Your task to perform on an android device: Search for macbook pro 13 inch on amazon.com, select the first entry, add it to the cart, then select checkout. Image 0: 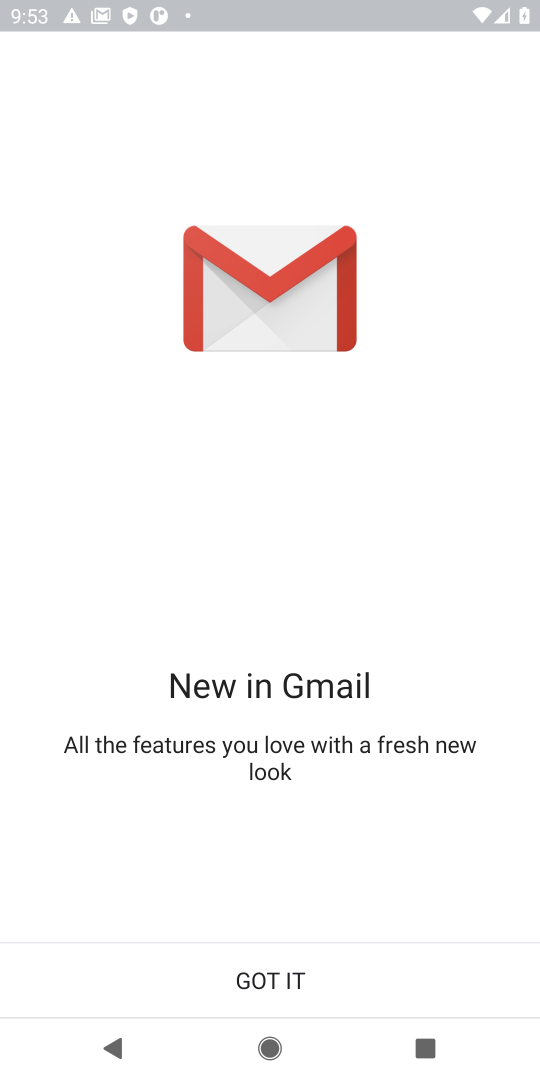
Step 0: press home button
Your task to perform on an android device: Search for macbook pro 13 inch on amazon.com, select the first entry, add it to the cart, then select checkout. Image 1: 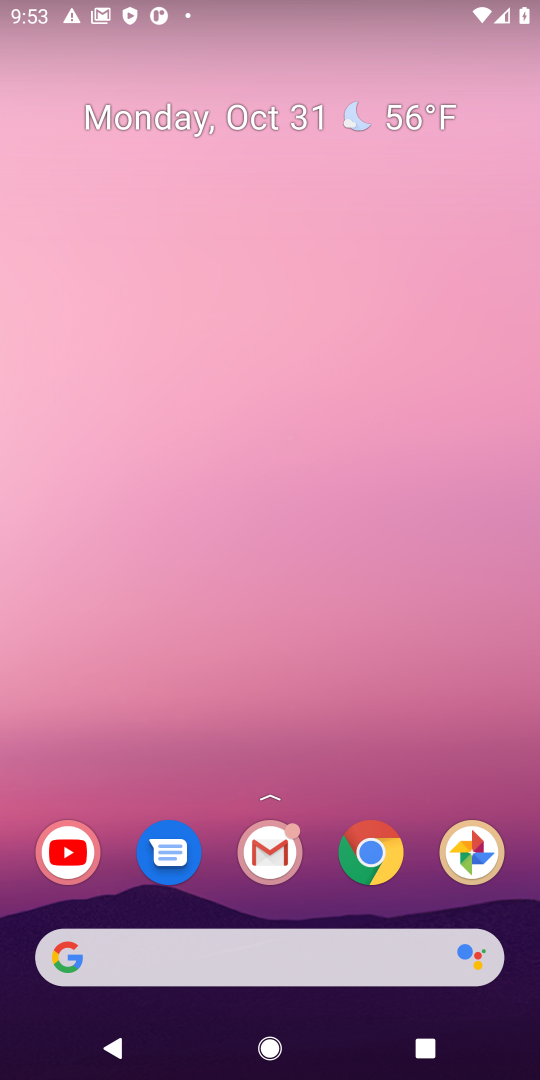
Step 1: drag from (317, 807) to (301, 111)
Your task to perform on an android device: Search for macbook pro 13 inch on amazon.com, select the first entry, add it to the cart, then select checkout. Image 2: 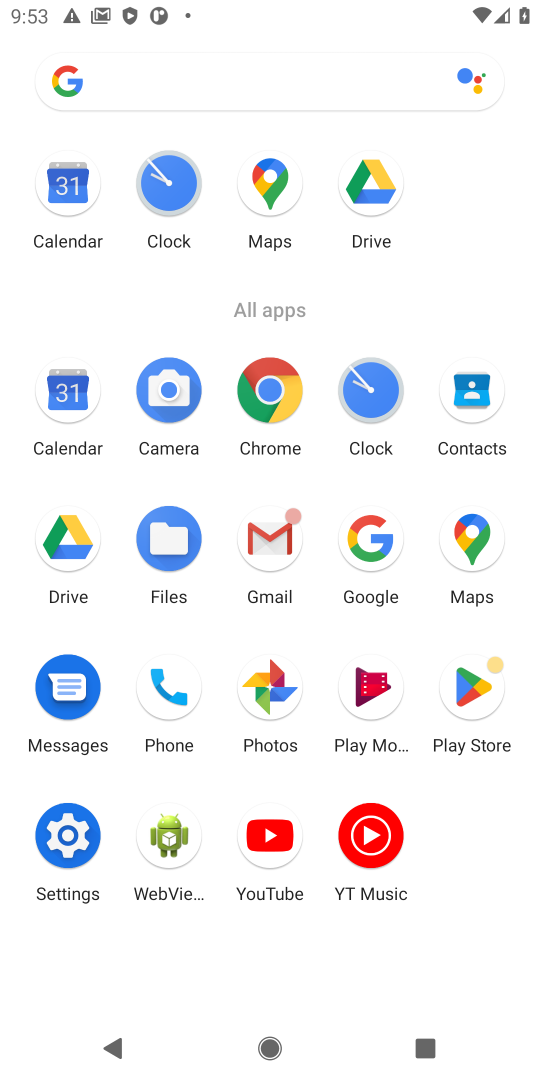
Step 2: click (270, 387)
Your task to perform on an android device: Search for macbook pro 13 inch on amazon.com, select the first entry, add it to the cart, then select checkout. Image 3: 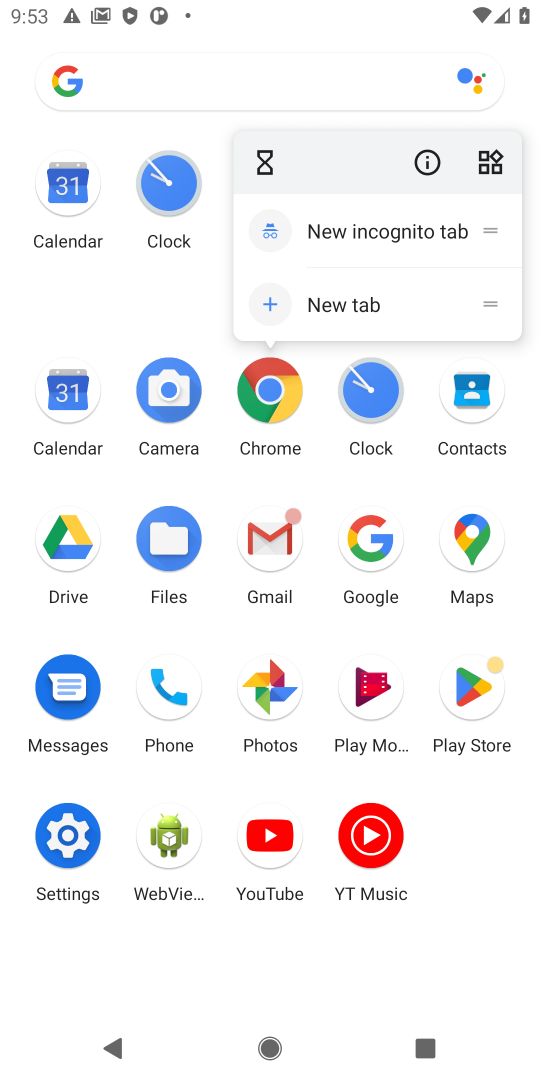
Step 3: click (270, 394)
Your task to perform on an android device: Search for macbook pro 13 inch on amazon.com, select the first entry, add it to the cart, then select checkout. Image 4: 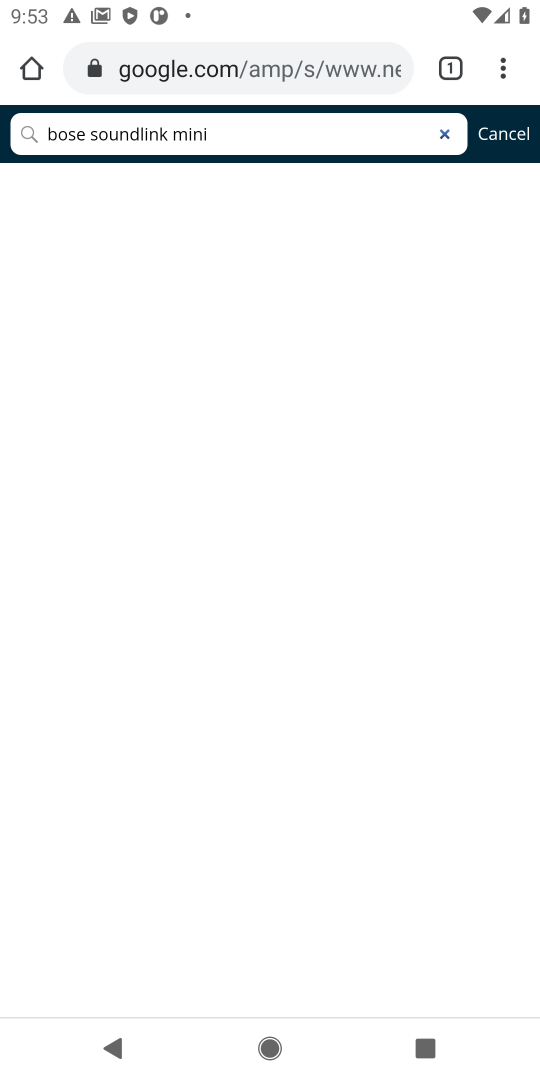
Step 4: click (444, 133)
Your task to perform on an android device: Search for macbook pro 13 inch on amazon.com, select the first entry, add it to the cart, then select checkout. Image 5: 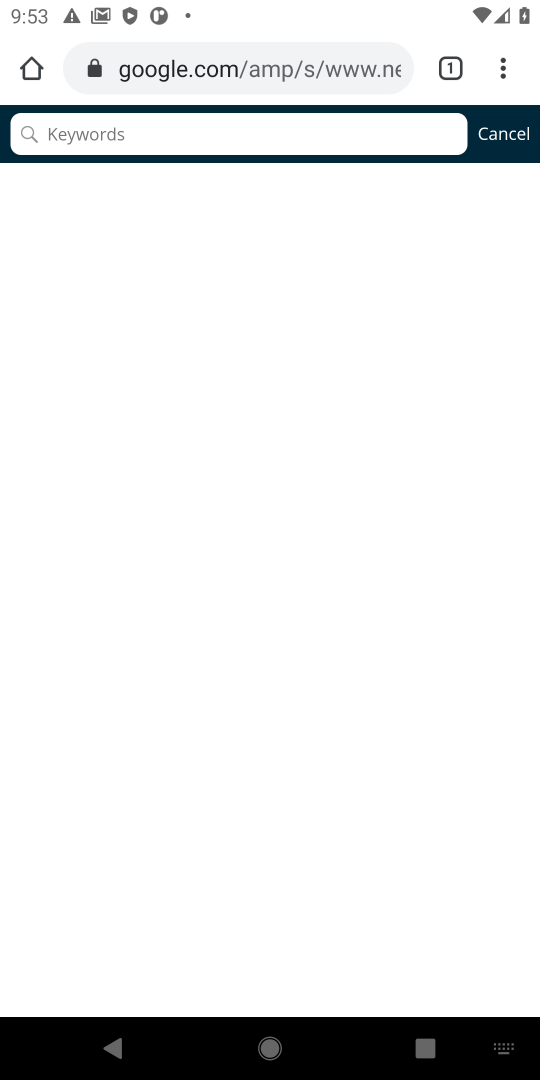
Step 5: click (179, 72)
Your task to perform on an android device: Search for macbook pro 13 inch on amazon.com, select the first entry, add it to the cart, then select checkout. Image 6: 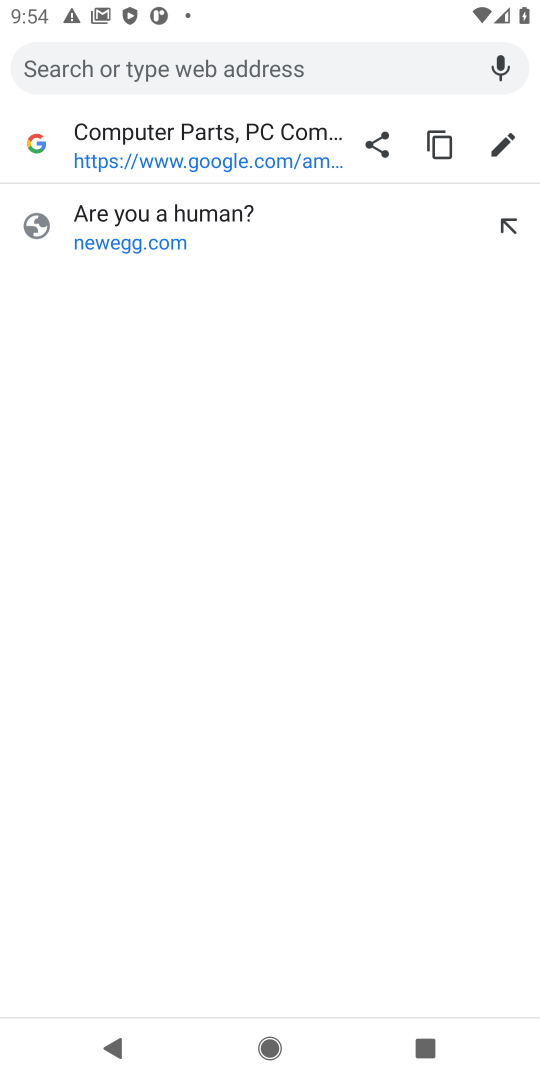
Step 6: type "amazon.com"
Your task to perform on an android device: Search for macbook pro 13 inch on amazon.com, select the first entry, add it to the cart, then select checkout. Image 7: 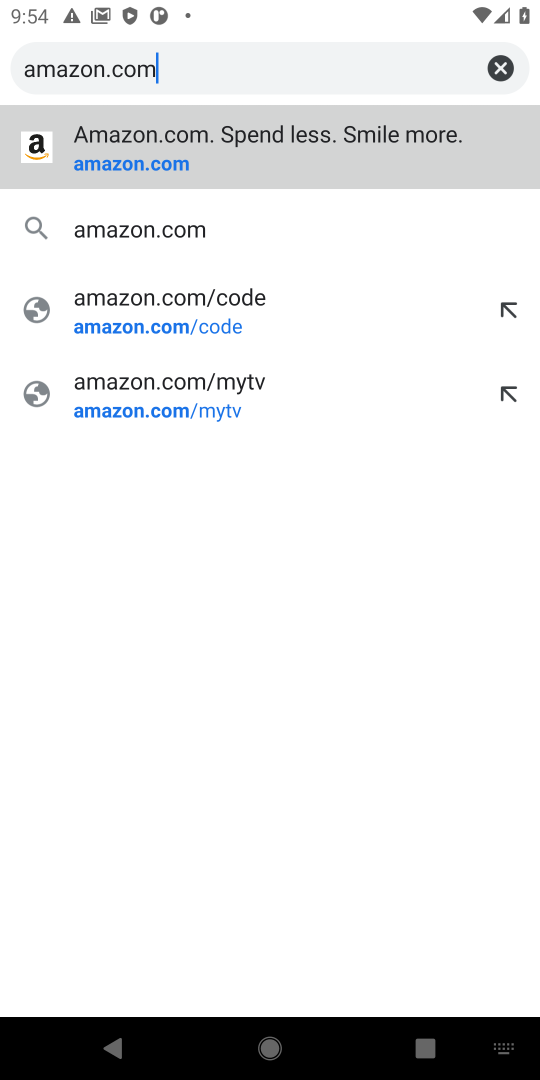
Step 7: click (109, 169)
Your task to perform on an android device: Search for macbook pro 13 inch on amazon.com, select the first entry, add it to the cart, then select checkout. Image 8: 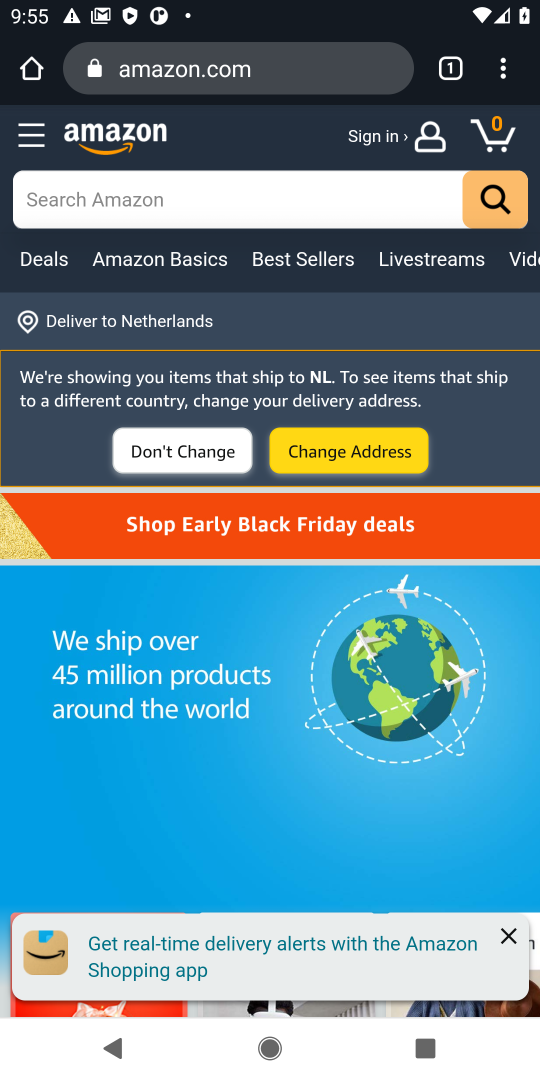
Step 8: click (58, 195)
Your task to perform on an android device: Search for macbook pro 13 inch on amazon.com, select the first entry, add it to the cart, then select checkout. Image 9: 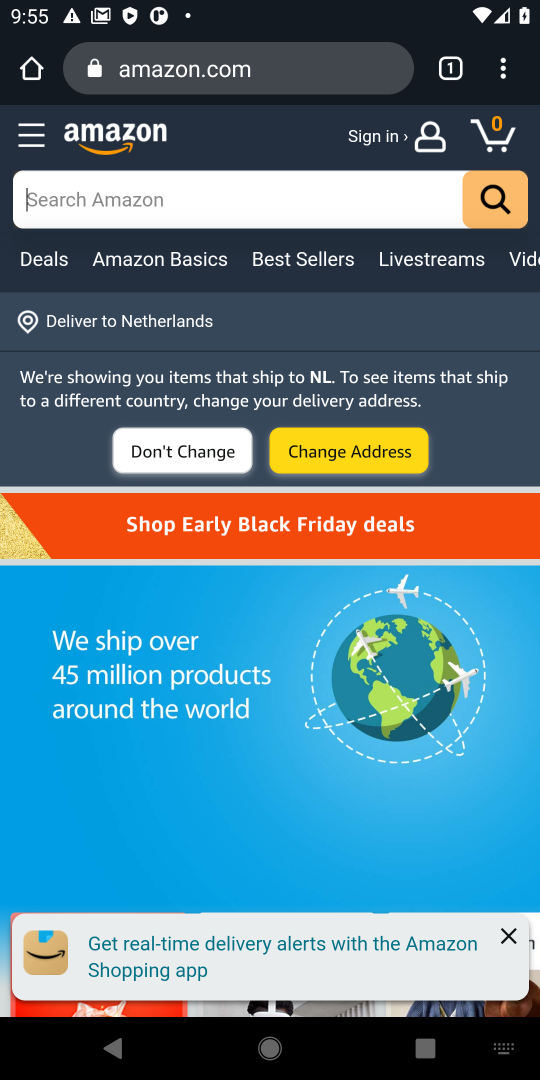
Step 9: type "macbook pro 13 inch"
Your task to perform on an android device: Search for macbook pro 13 inch on amazon.com, select the first entry, add it to the cart, then select checkout. Image 10: 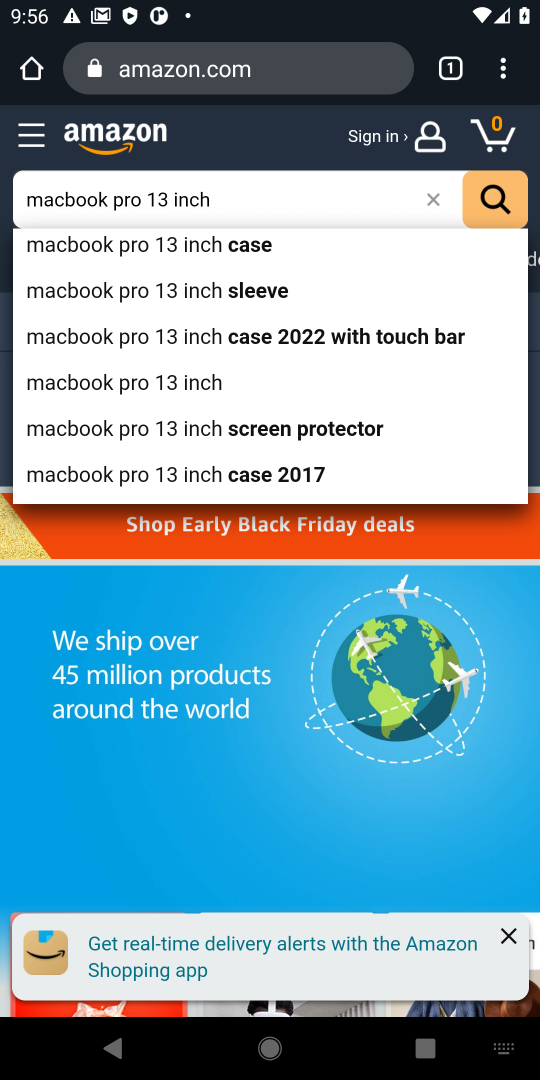
Step 10: click (279, 248)
Your task to perform on an android device: Search for macbook pro 13 inch on amazon.com, select the first entry, add it to the cart, then select checkout. Image 11: 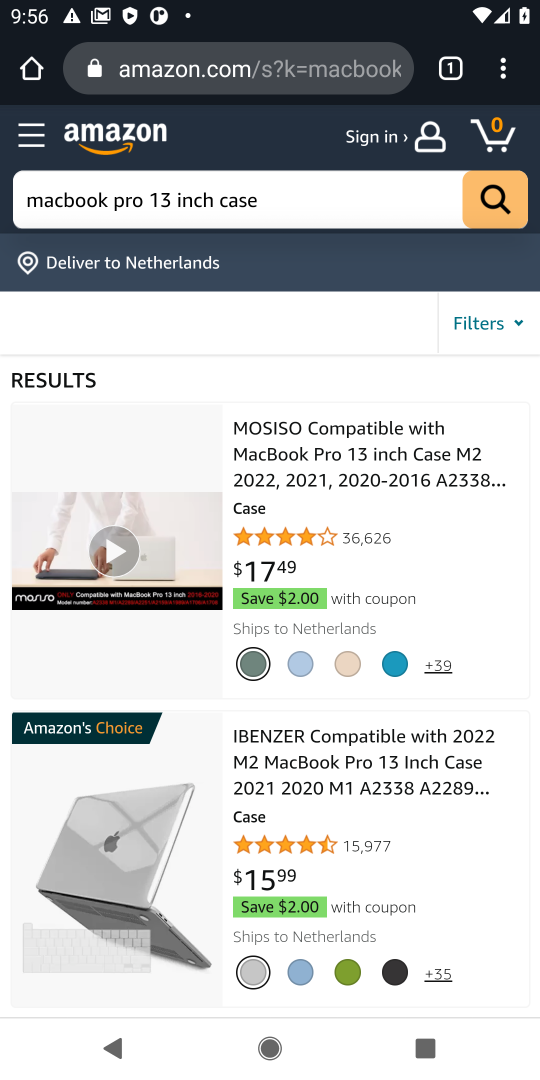
Step 11: click (331, 767)
Your task to perform on an android device: Search for macbook pro 13 inch on amazon.com, select the first entry, add it to the cart, then select checkout. Image 12: 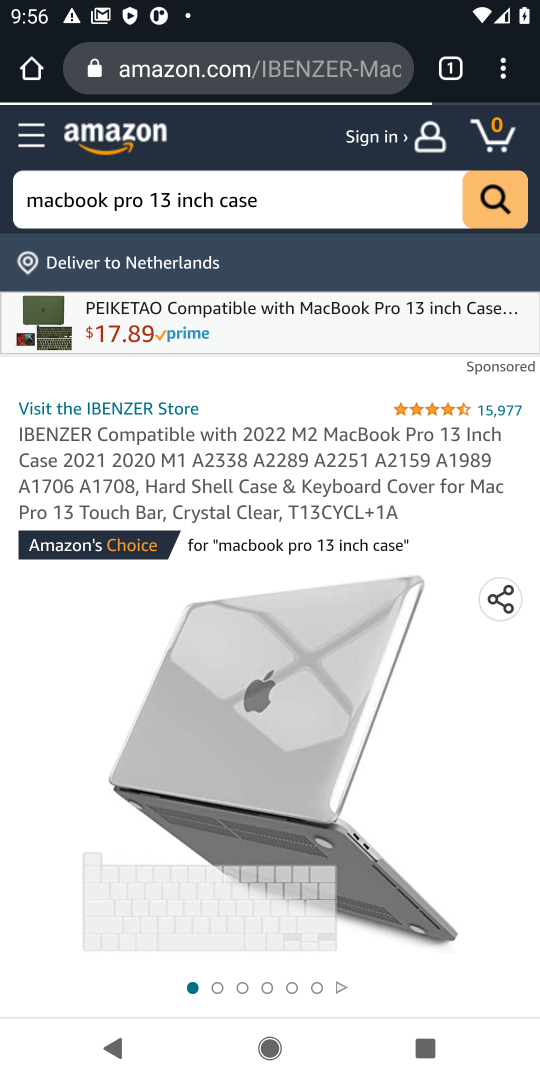
Step 12: drag from (367, 922) to (352, 426)
Your task to perform on an android device: Search for macbook pro 13 inch on amazon.com, select the first entry, add it to the cart, then select checkout. Image 13: 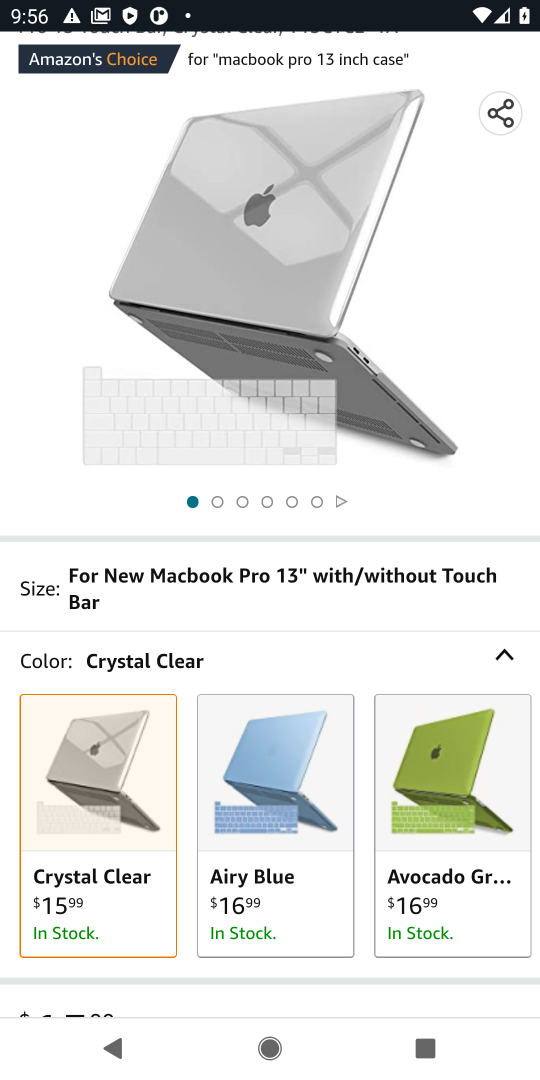
Step 13: drag from (347, 969) to (322, 468)
Your task to perform on an android device: Search for macbook pro 13 inch on amazon.com, select the first entry, add it to the cart, then select checkout. Image 14: 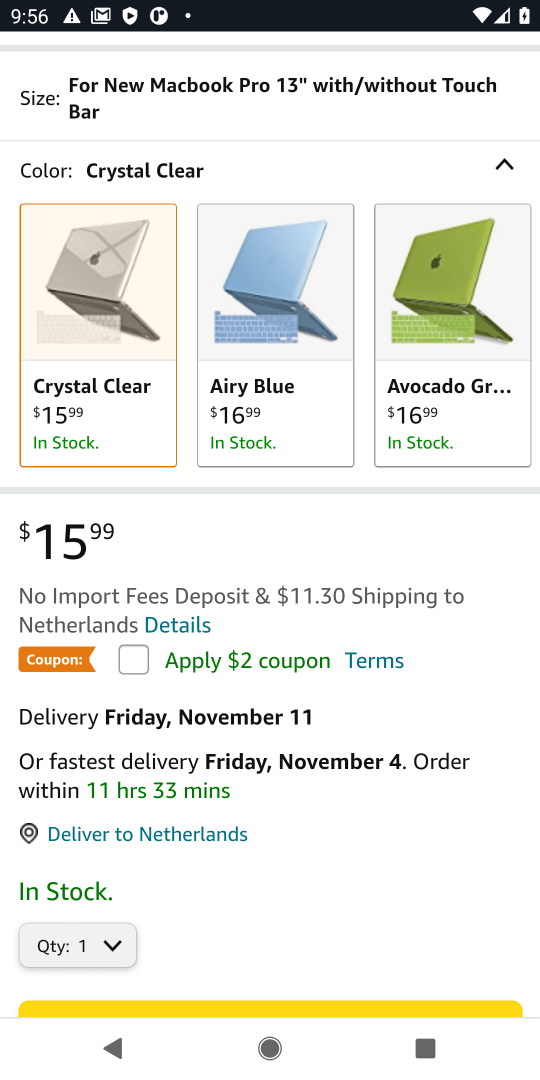
Step 14: drag from (260, 926) to (276, 488)
Your task to perform on an android device: Search for macbook pro 13 inch on amazon.com, select the first entry, add it to the cart, then select checkout. Image 15: 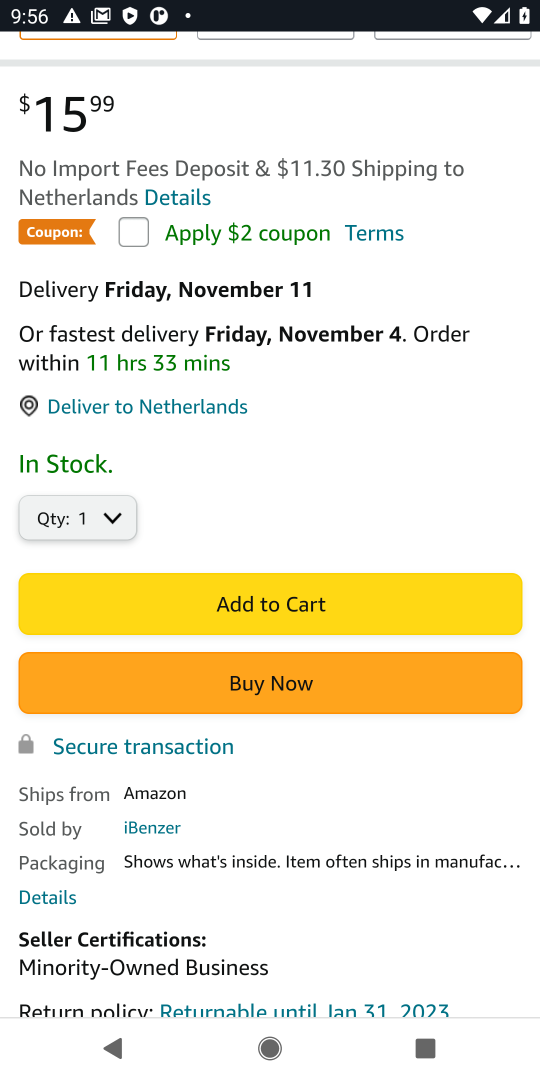
Step 15: click (297, 590)
Your task to perform on an android device: Search for macbook pro 13 inch on amazon.com, select the first entry, add it to the cart, then select checkout. Image 16: 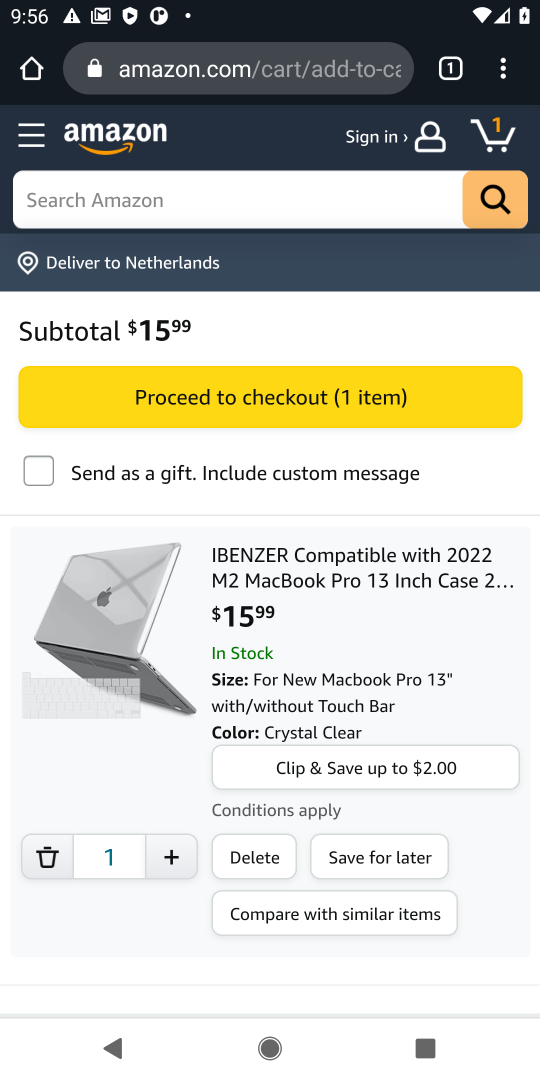
Step 16: drag from (180, 788) to (243, 897)
Your task to perform on an android device: Search for macbook pro 13 inch on amazon.com, select the first entry, add it to the cart, then select checkout. Image 17: 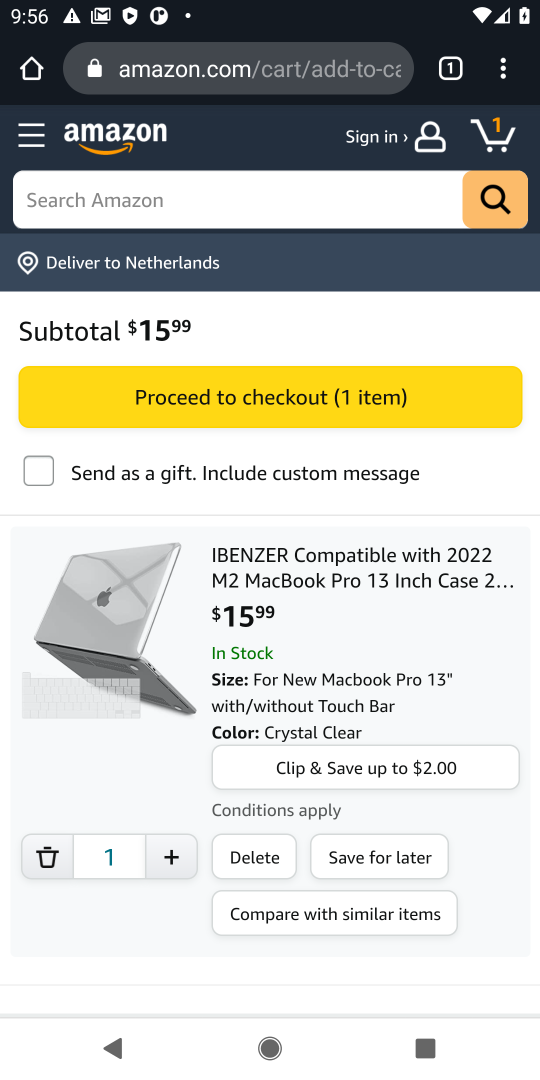
Step 17: click (271, 394)
Your task to perform on an android device: Search for macbook pro 13 inch on amazon.com, select the first entry, add it to the cart, then select checkout. Image 18: 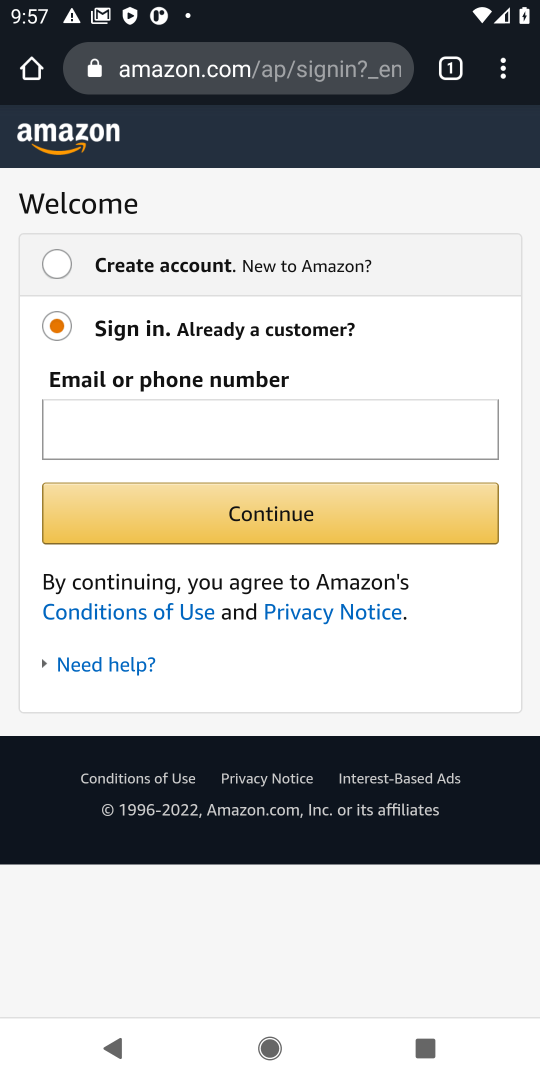
Step 18: task complete